Your task to perform on an android device: set the stopwatch Image 0: 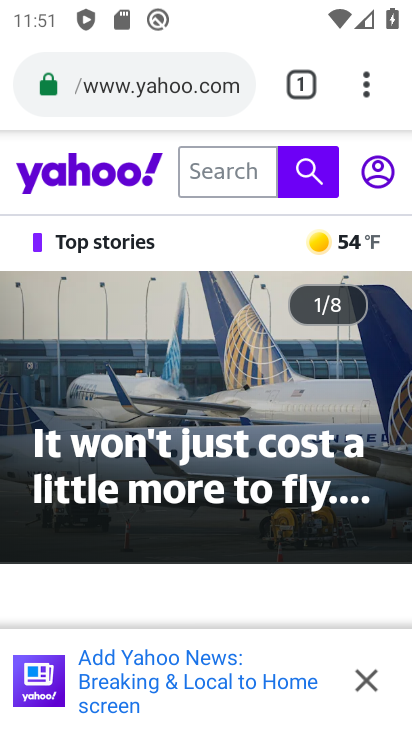
Step 0: press home button
Your task to perform on an android device: set the stopwatch Image 1: 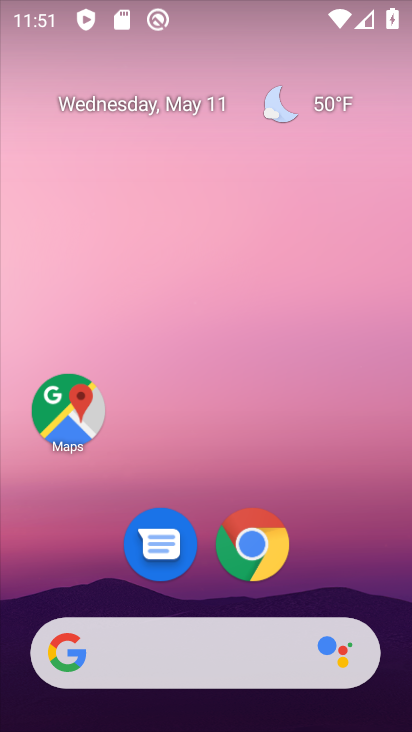
Step 1: drag from (224, 626) to (190, 196)
Your task to perform on an android device: set the stopwatch Image 2: 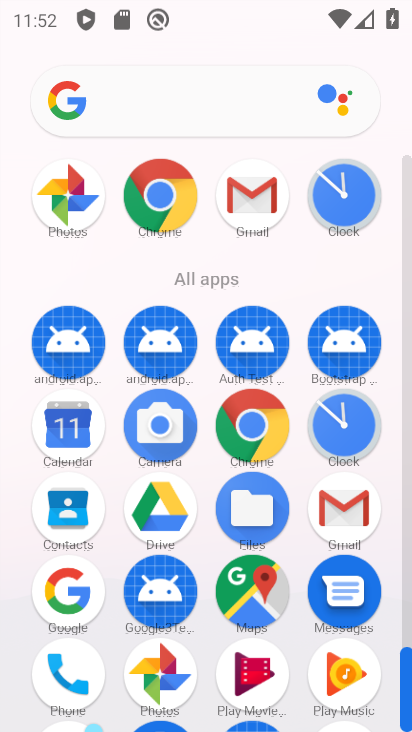
Step 2: click (340, 214)
Your task to perform on an android device: set the stopwatch Image 3: 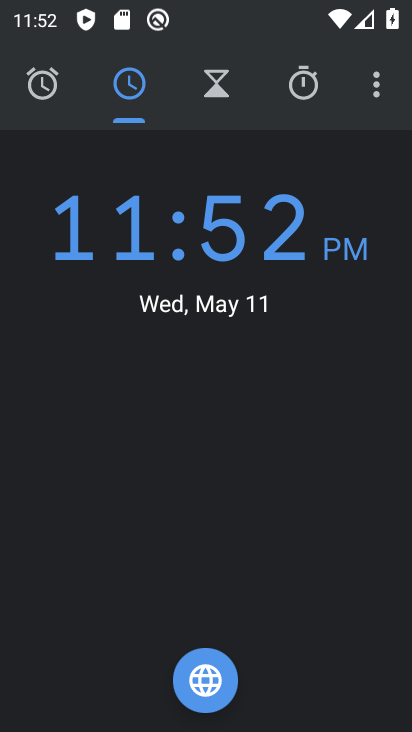
Step 3: click (288, 94)
Your task to perform on an android device: set the stopwatch Image 4: 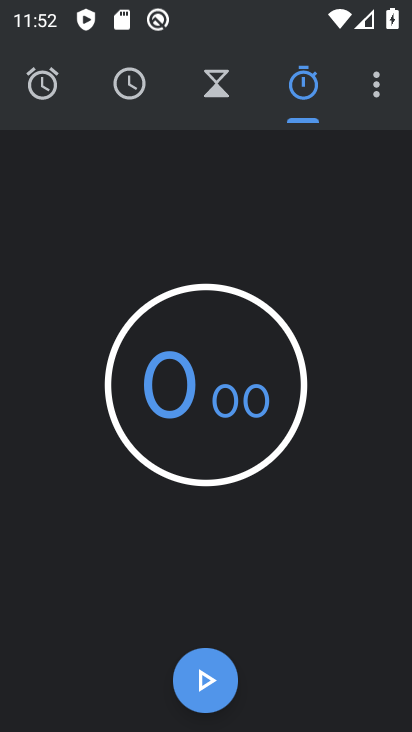
Step 4: click (215, 704)
Your task to perform on an android device: set the stopwatch Image 5: 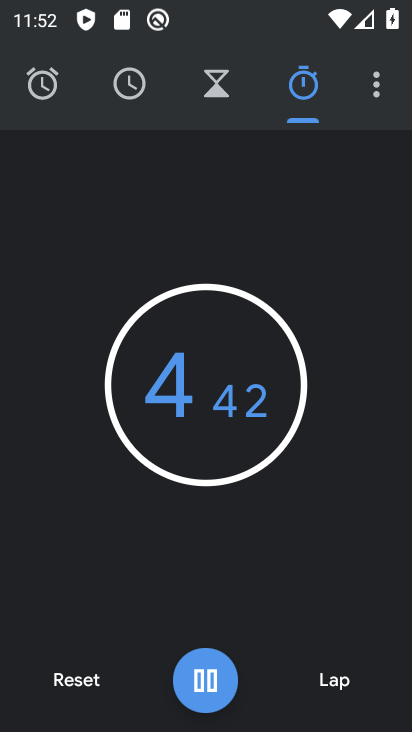
Step 5: task complete